Your task to perform on an android device: What's the news in Thailand? Image 0: 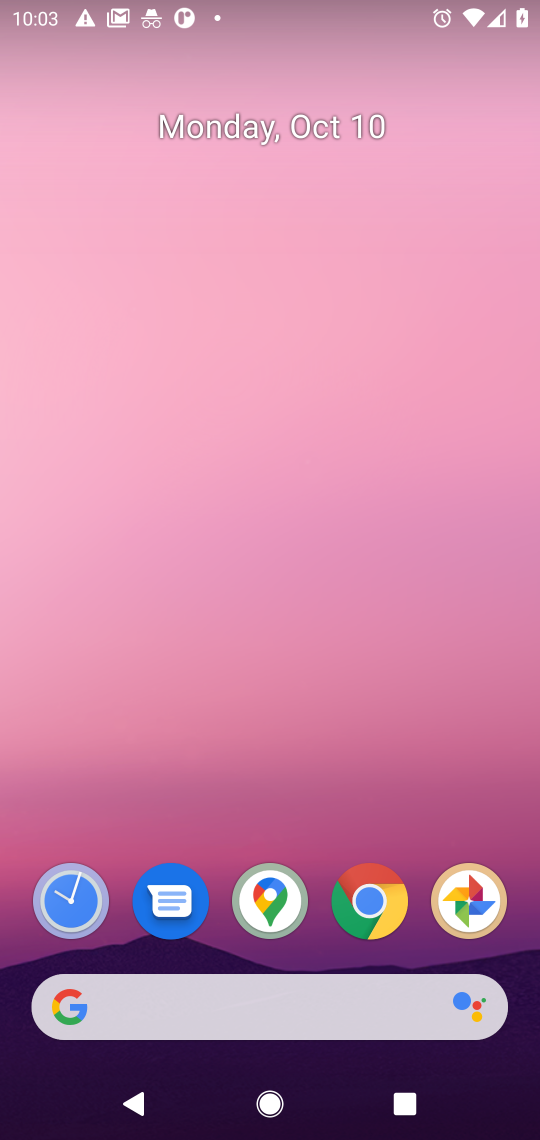
Step 0: click (273, 1002)
Your task to perform on an android device: What's the news in Thailand? Image 1: 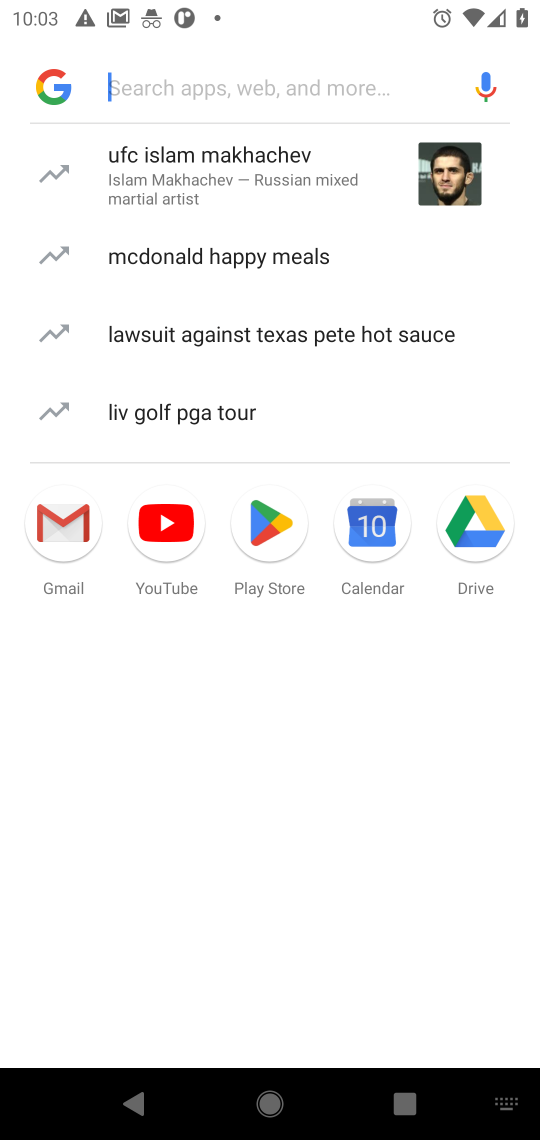
Step 1: type "What's the news in Thailand"
Your task to perform on an android device: What's the news in Thailand? Image 2: 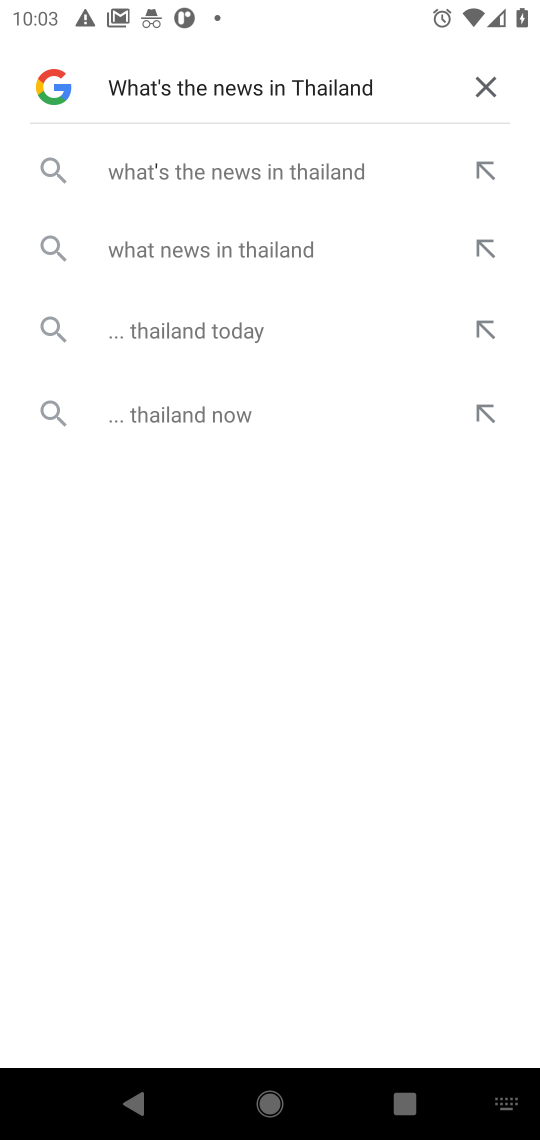
Step 2: press enter
Your task to perform on an android device: What's the news in Thailand? Image 3: 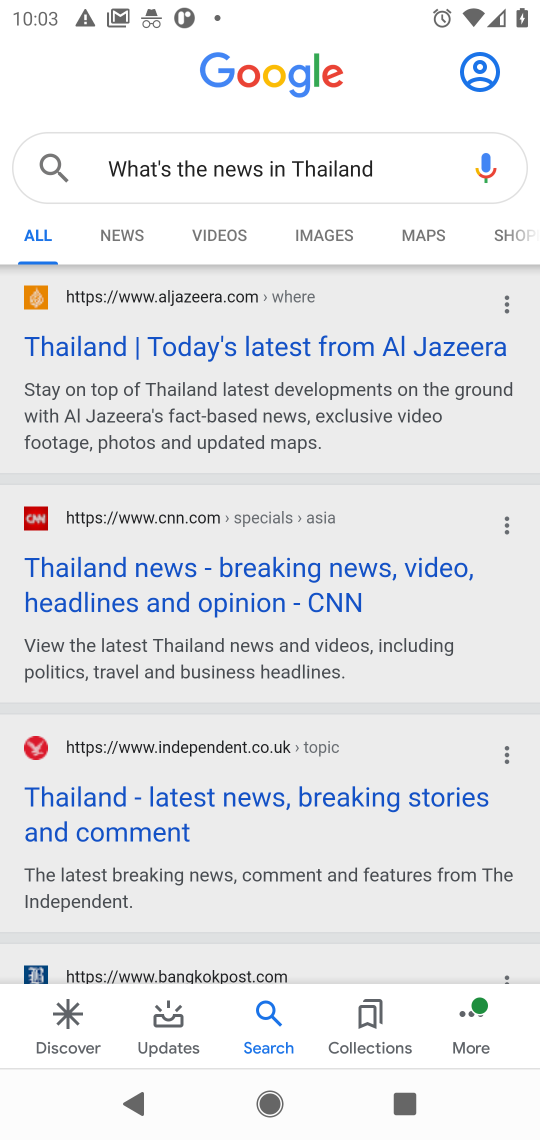
Step 3: click (348, 588)
Your task to perform on an android device: What's the news in Thailand? Image 4: 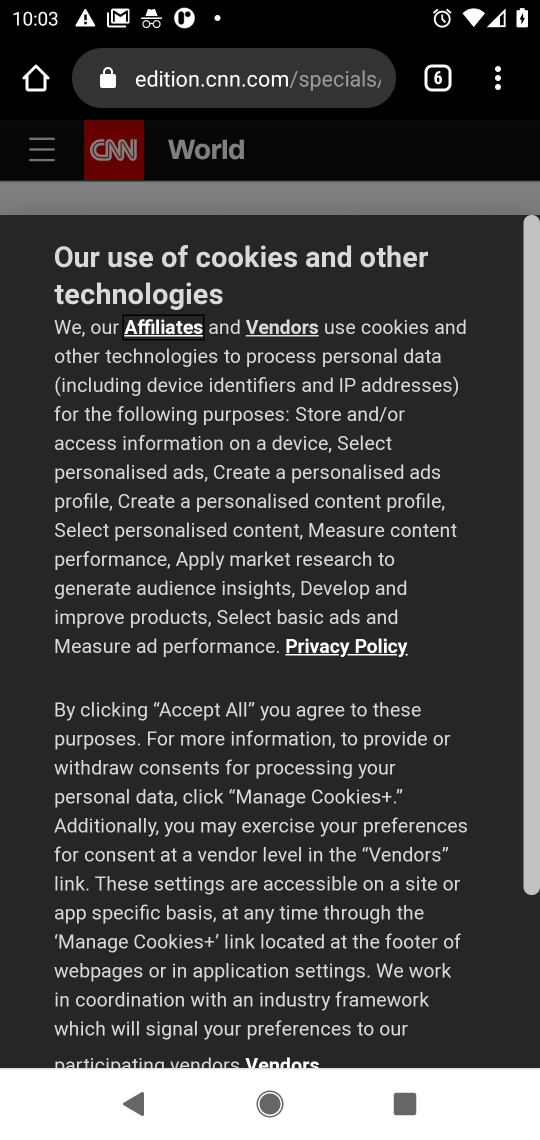
Step 4: drag from (398, 957) to (415, 594)
Your task to perform on an android device: What's the news in Thailand? Image 5: 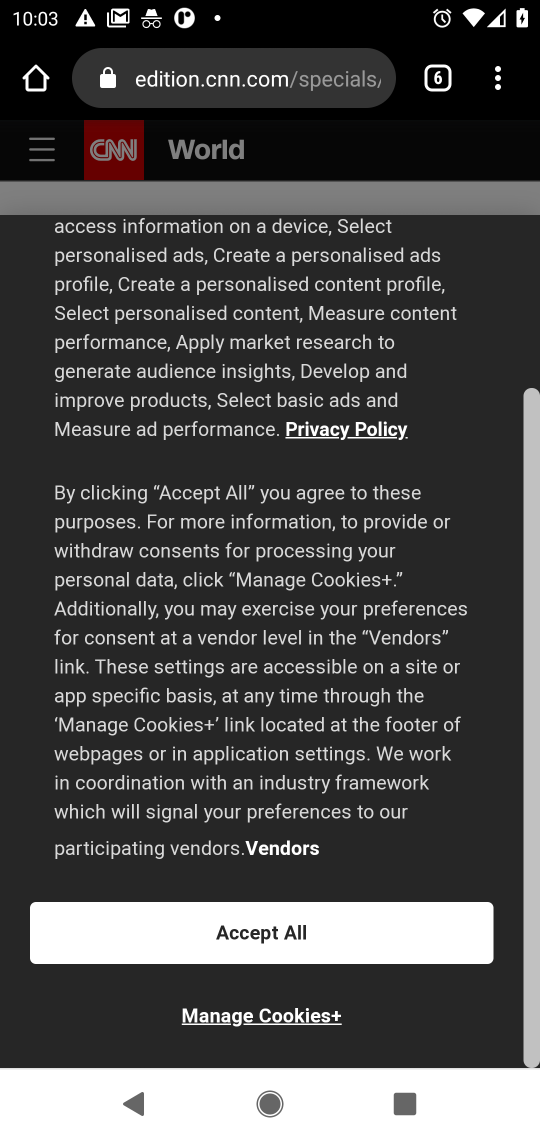
Step 5: click (347, 939)
Your task to perform on an android device: What's the news in Thailand? Image 6: 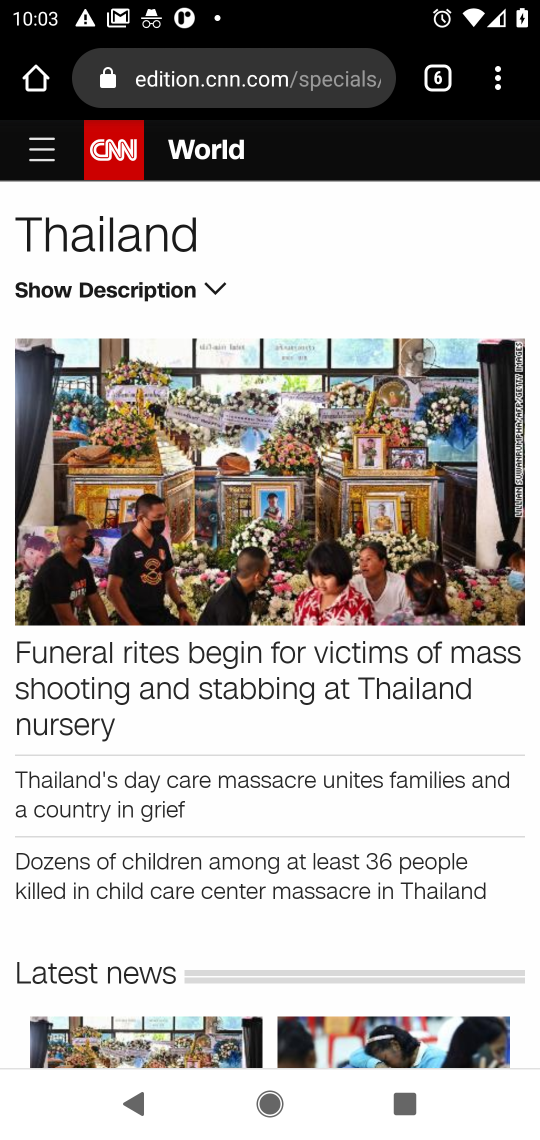
Step 6: task complete